Your task to perform on an android device: show emergency info Image 0: 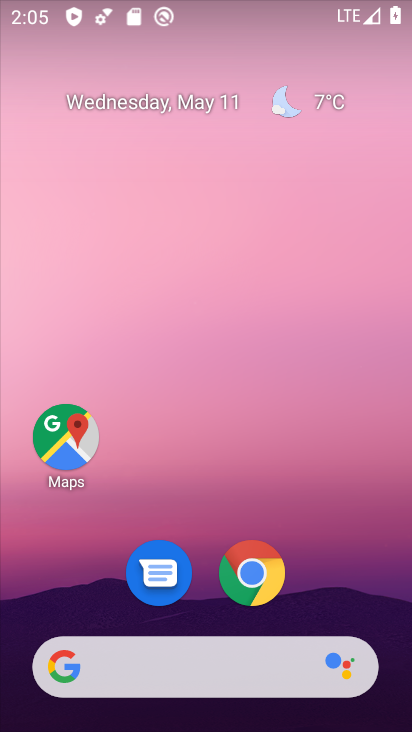
Step 0: drag from (174, 638) to (301, 226)
Your task to perform on an android device: show emergency info Image 1: 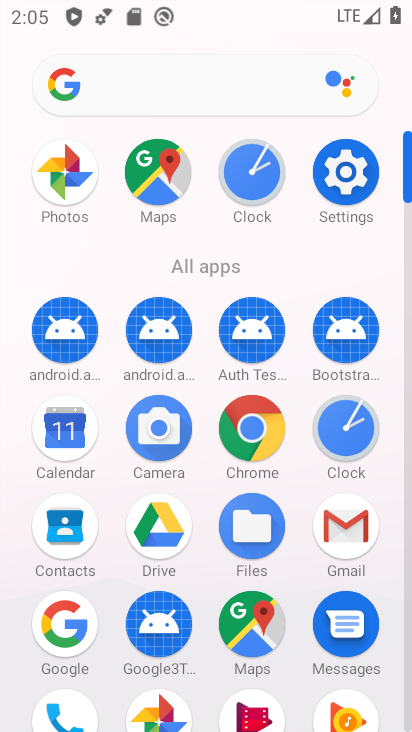
Step 1: drag from (172, 621) to (242, 344)
Your task to perform on an android device: show emergency info Image 2: 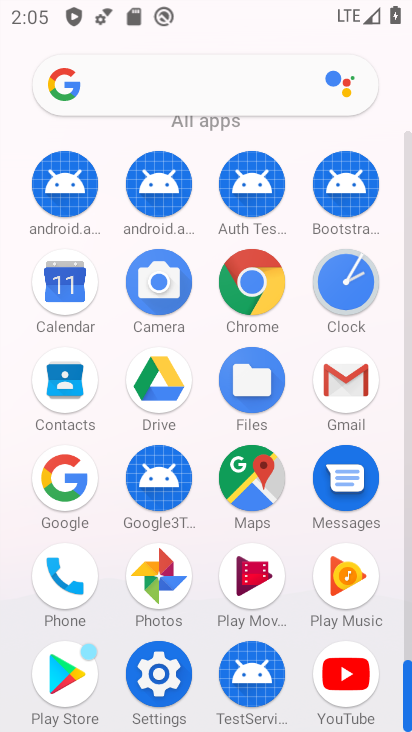
Step 2: click (154, 690)
Your task to perform on an android device: show emergency info Image 3: 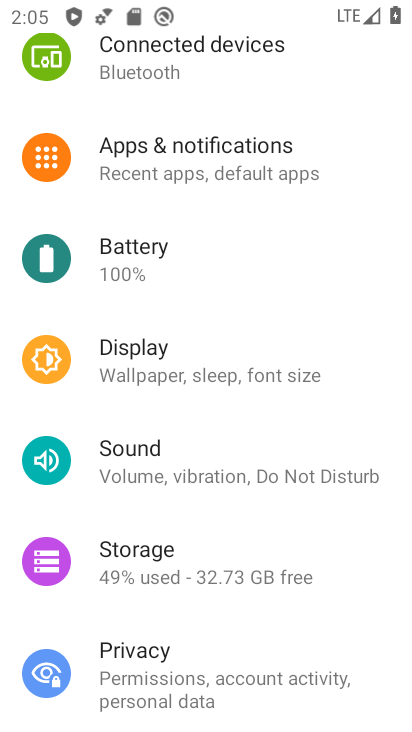
Step 3: drag from (183, 700) to (206, 594)
Your task to perform on an android device: show emergency info Image 4: 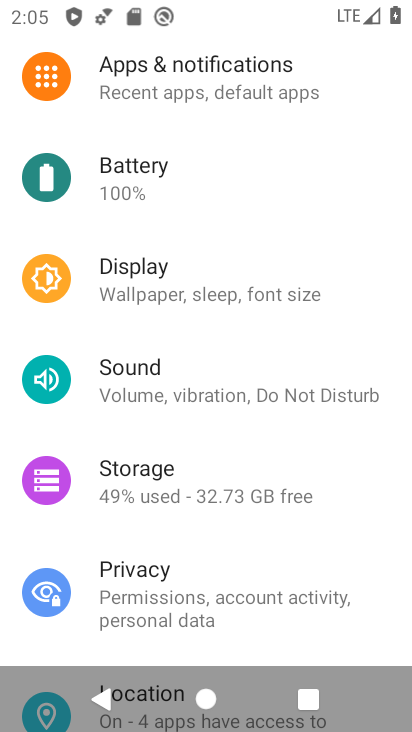
Step 4: drag from (179, 650) to (268, 368)
Your task to perform on an android device: show emergency info Image 5: 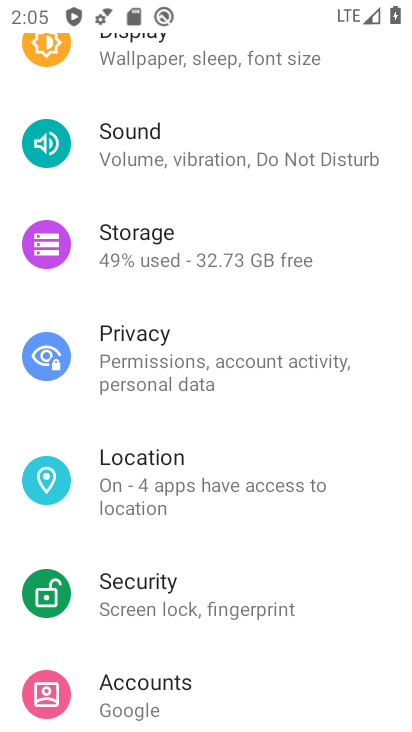
Step 5: drag from (171, 707) to (253, 420)
Your task to perform on an android device: show emergency info Image 6: 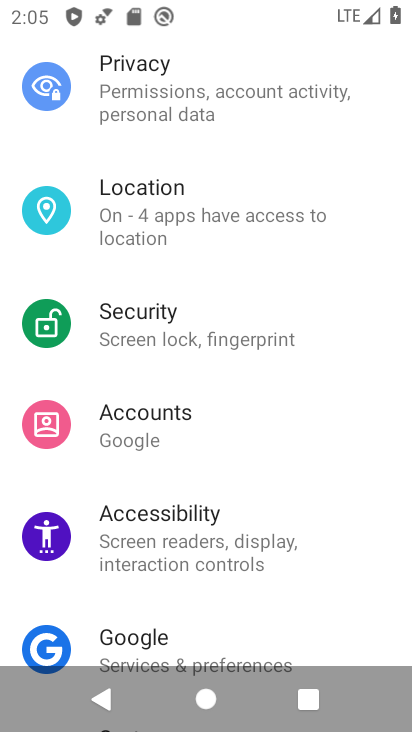
Step 6: drag from (206, 675) to (311, 386)
Your task to perform on an android device: show emergency info Image 7: 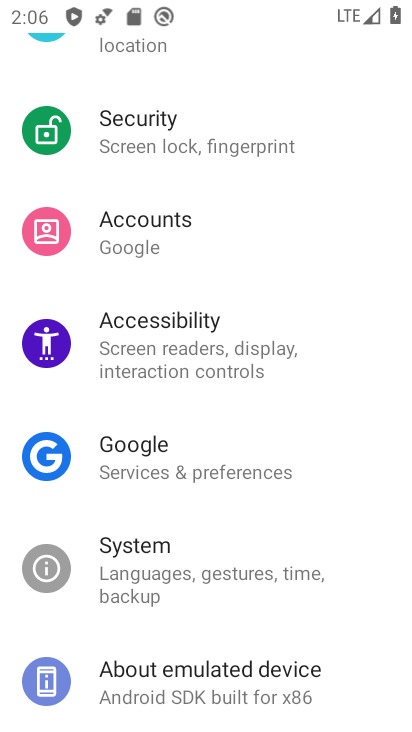
Step 7: click (236, 688)
Your task to perform on an android device: show emergency info Image 8: 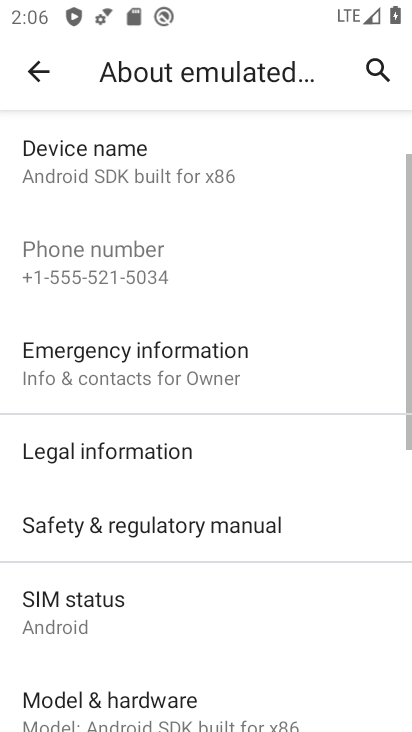
Step 8: click (164, 354)
Your task to perform on an android device: show emergency info Image 9: 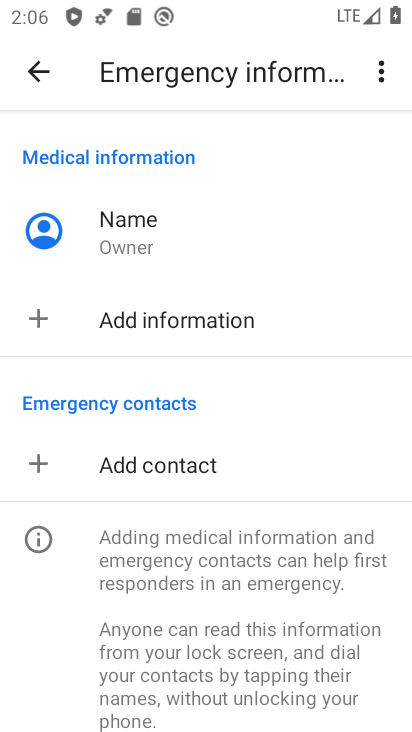
Step 9: task complete